Your task to perform on an android device: turn on improve location accuracy Image 0: 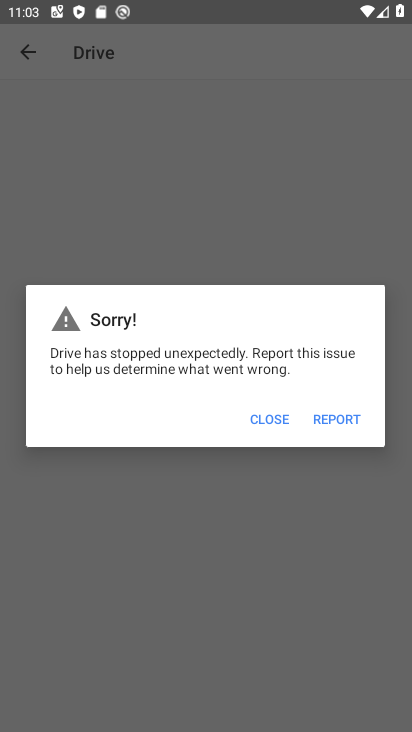
Step 0: press home button
Your task to perform on an android device: turn on improve location accuracy Image 1: 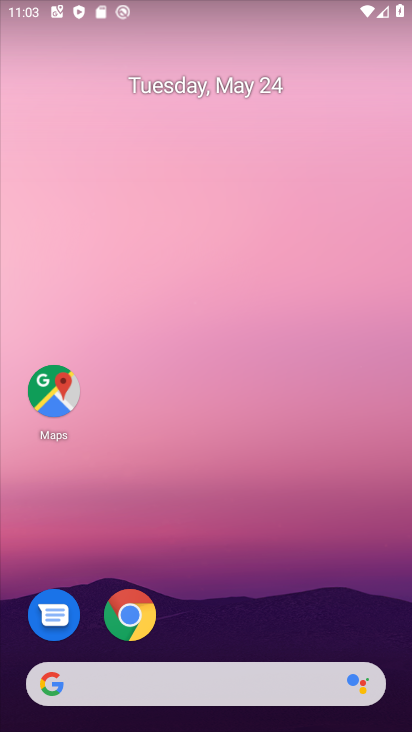
Step 1: drag from (306, 575) to (297, 121)
Your task to perform on an android device: turn on improve location accuracy Image 2: 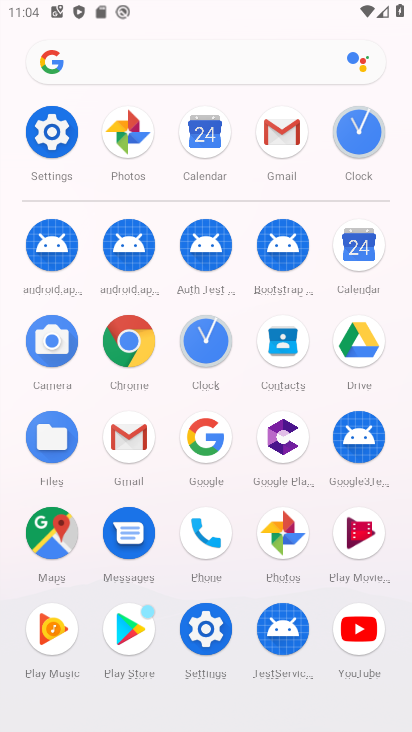
Step 2: click (62, 138)
Your task to perform on an android device: turn on improve location accuracy Image 3: 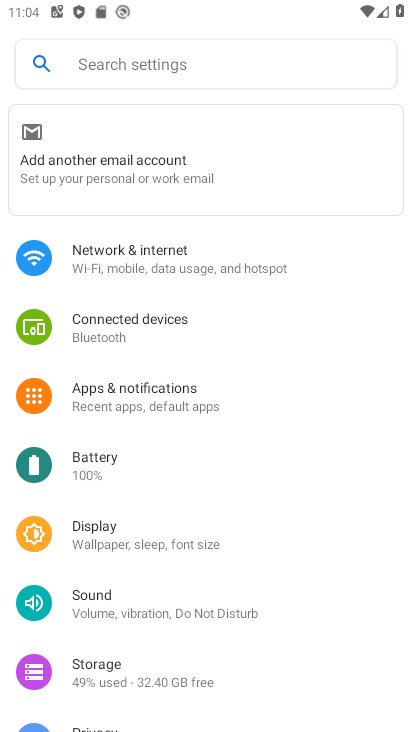
Step 3: drag from (184, 557) to (238, 256)
Your task to perform on an android device: turn on improve location accuracy Image 4: 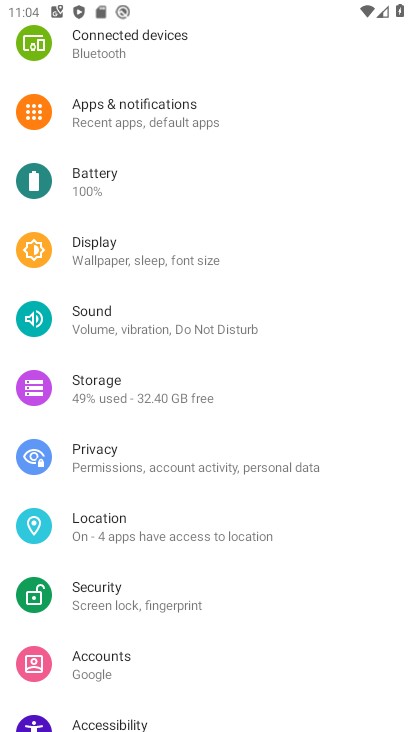
Step 4: click (99, 517)
Your task to perform on an android device: turn on improve location accuracy Image 5: 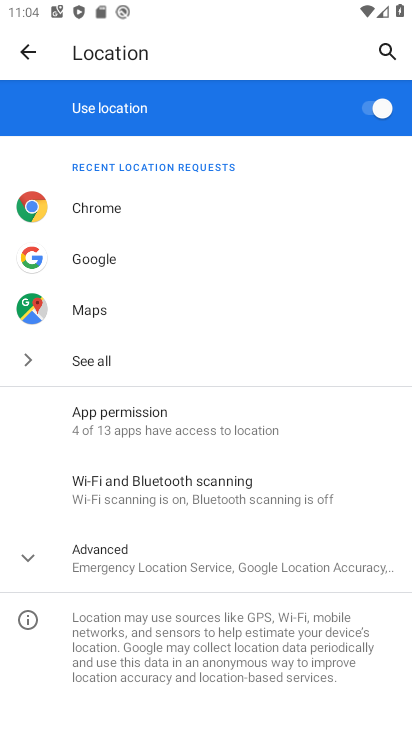
Step 5: click (126, 562)
Your task to perform on an android device: turn on improve location accuracy Image 6: 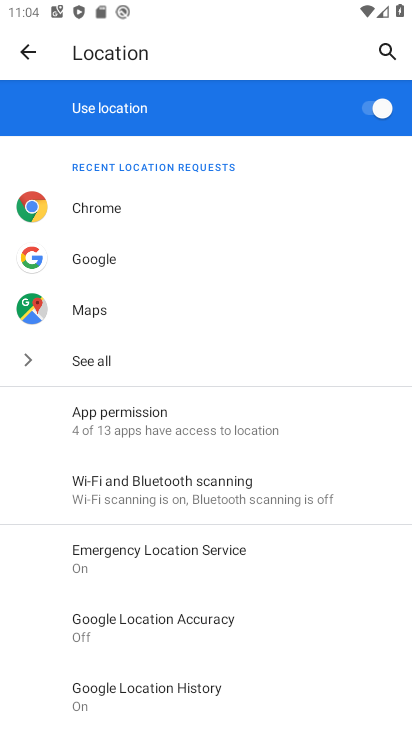
Step 6: click (193, 620)
Your task to perform on an android device: turn on improve location accuracy Image 7: 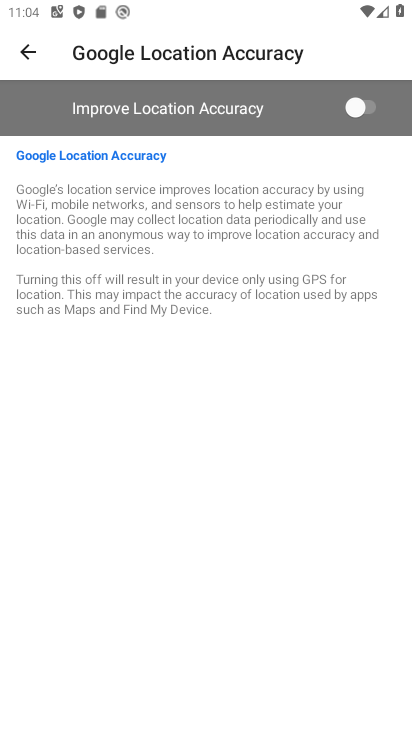
Step 7: click (357, 99)
Your task to perform on an android device: turn on improve location accuracy Image 8: 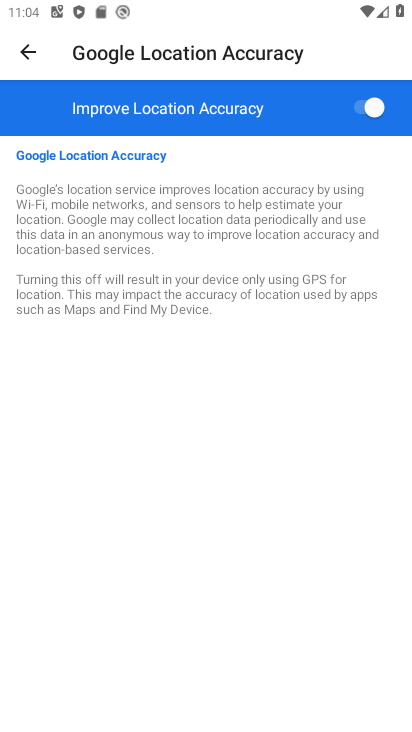
Step 8: task complete